Your task to perform on an android device: Check the weather Image 0: 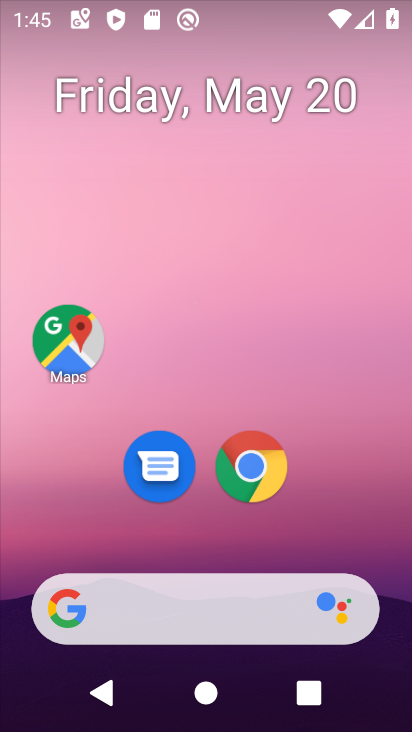
Step 0: drag from (206, 561) to (174, 29)
Your task to perform on an android device: Check the weather Image 1: 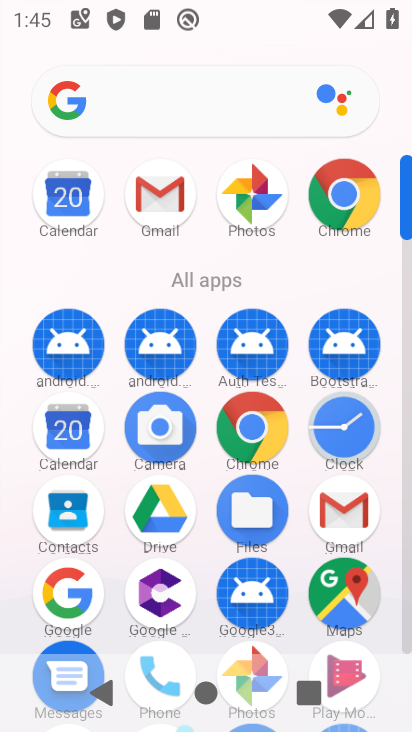
Step 1: click (55, 575)
Your task to perform on an android device: Check the weather Image 2: 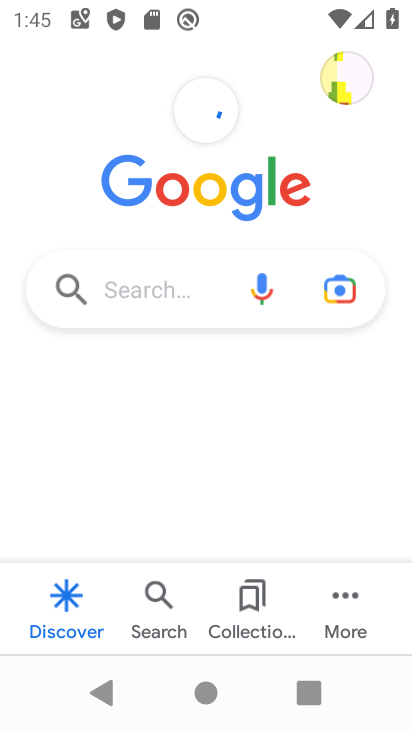
Step 2: click (150, 285)
Your task to perform on an android device: Check the weather Image 3: 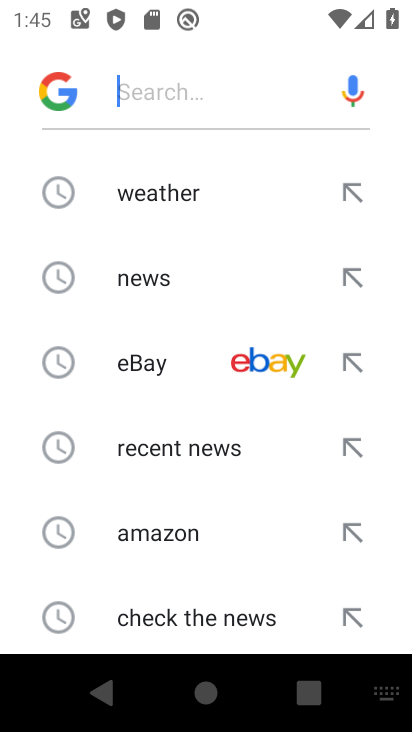
Step 3: click (91, 207)
Your task to perform on an android device: Check the weather Image 4: 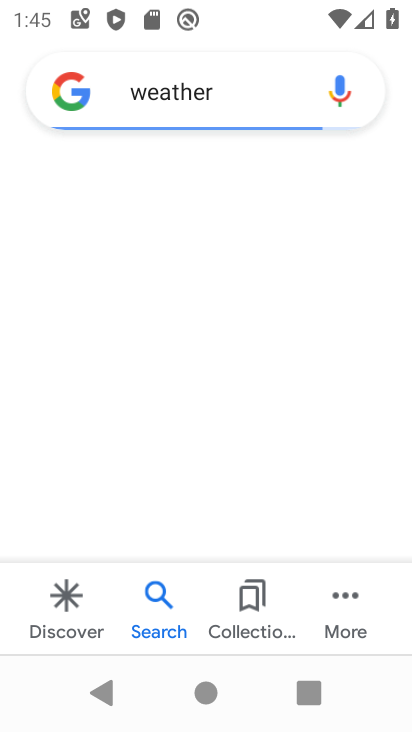
Step 4: task complete